Your task to perform on an android device: visit the assistant section in the google photos Image 0: 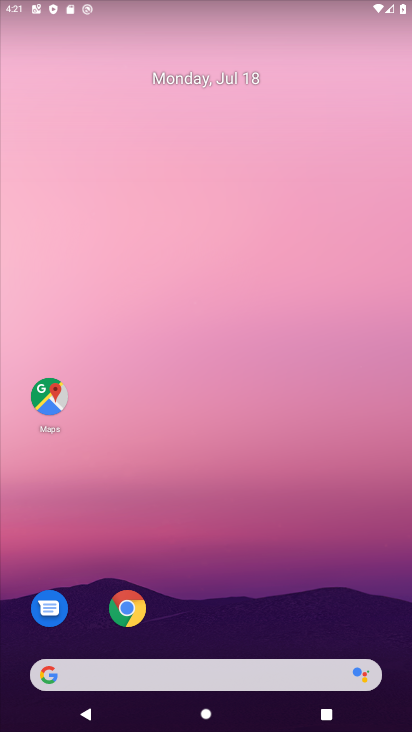
Step 0: drag from (257, 622) to (228, 33)
Your task to perform on an android device: visit the assistant section in the google photos Image 1: 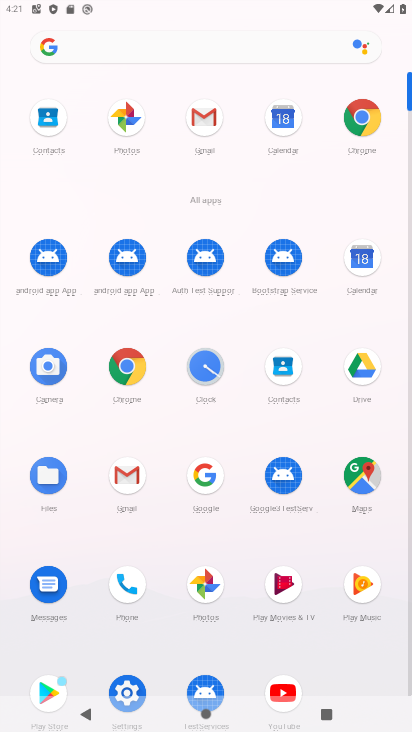
Step 1: click (205, 573)
Your task to perform on an android device: visit the assistant section in the google photos Image 2: 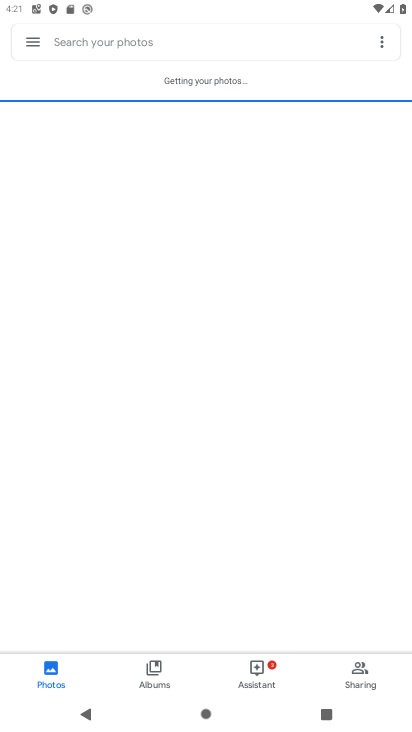
Step 2: click (204, 573)
Your task to perform on an android device: visit the assistant section in the google photos Image 3: 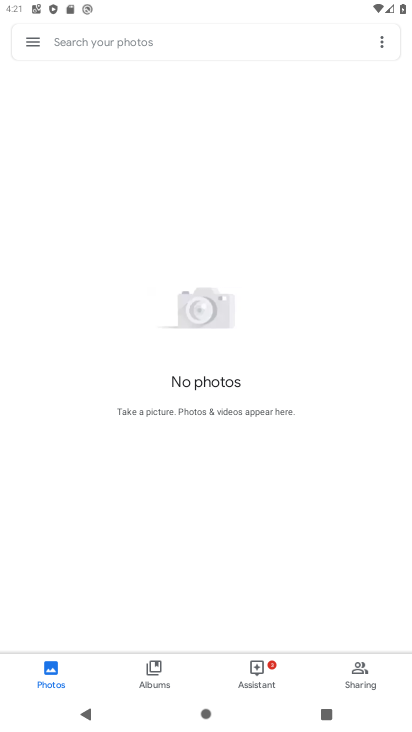
Step 3: click (254, 671)
Your task to perform on an android device: visit the assistant section in the google photos Image 4: 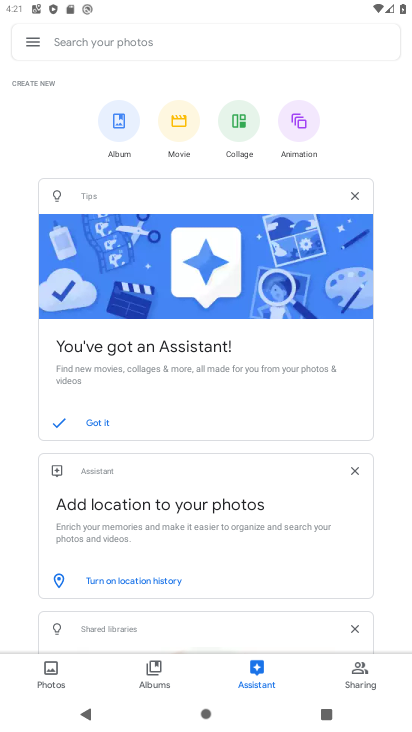
Step 4: task complete